Your task to perform on an android device: turn on wifi Image 0: 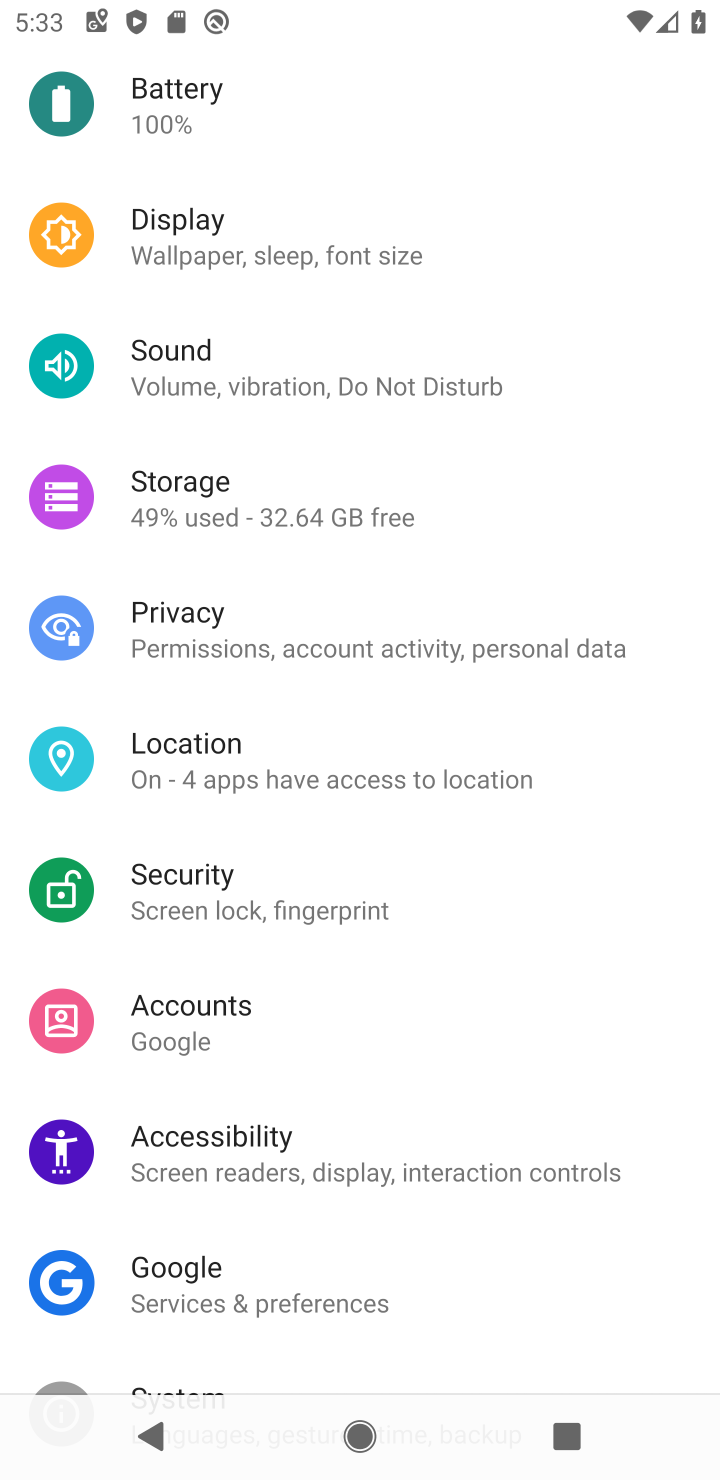
Step 0: drag from (265, 556) to (344, 1262)
Your task to perform on an android device: turn on wifi Image 1: 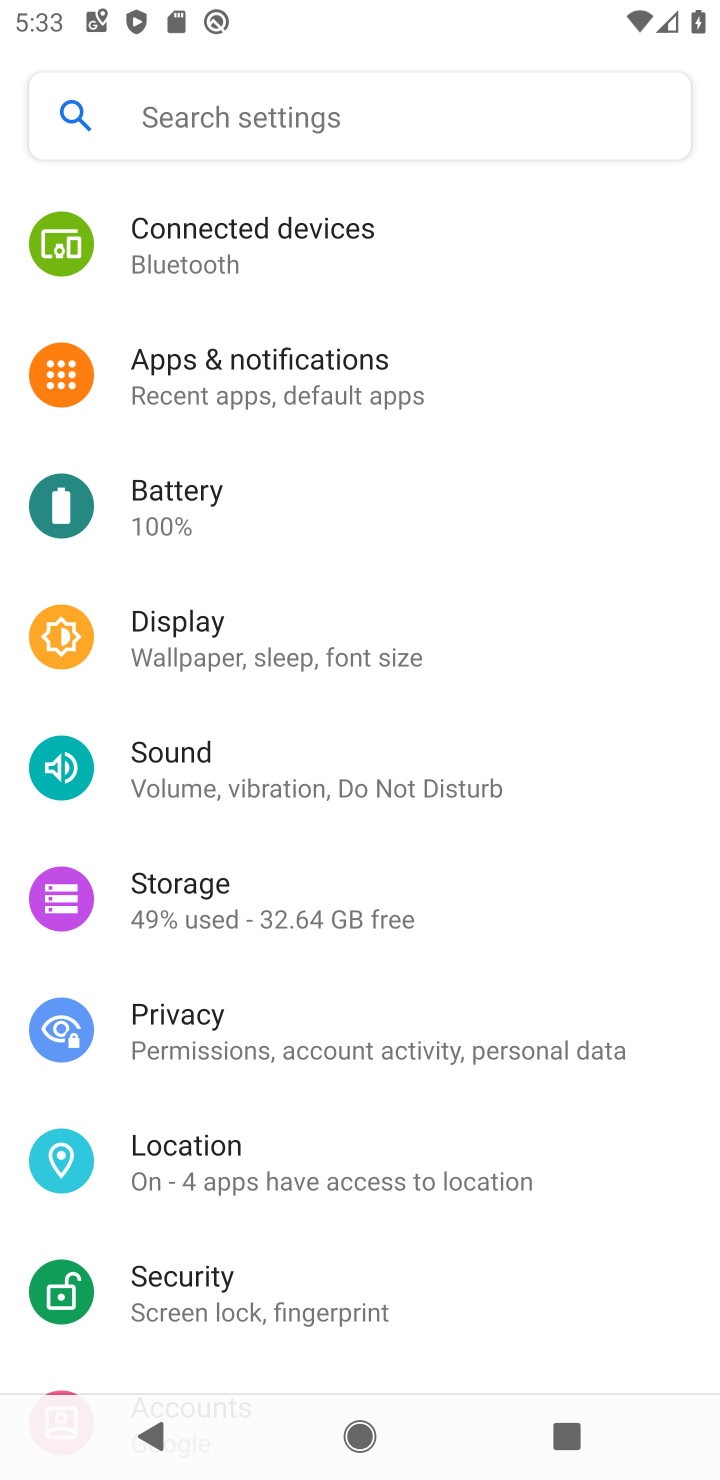
Step 1: drag from (310, 516) to (366, 1297)
Your task to perform on an android device: turn on wifi Image 2: 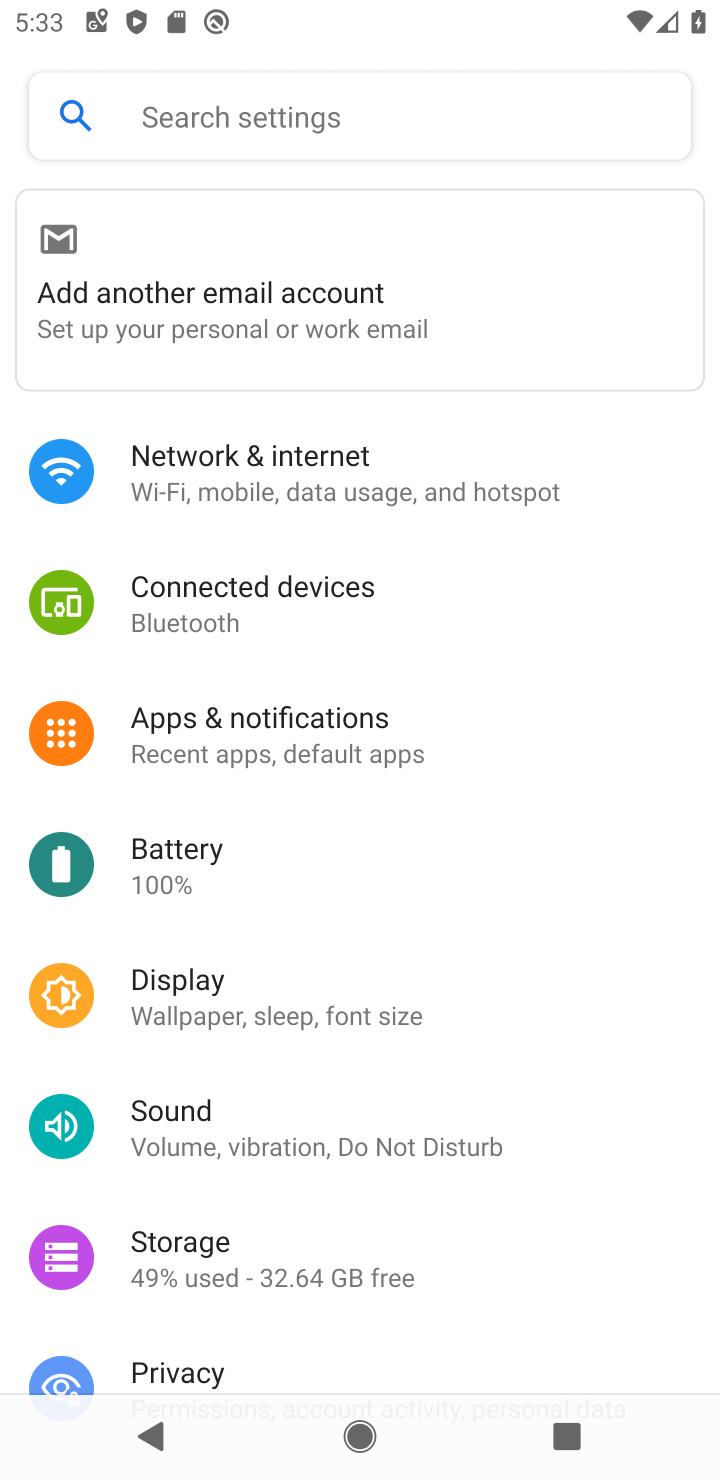
Step 2: click (279, 485)
Your task to perform on an android device: turn on wifi Image 3: 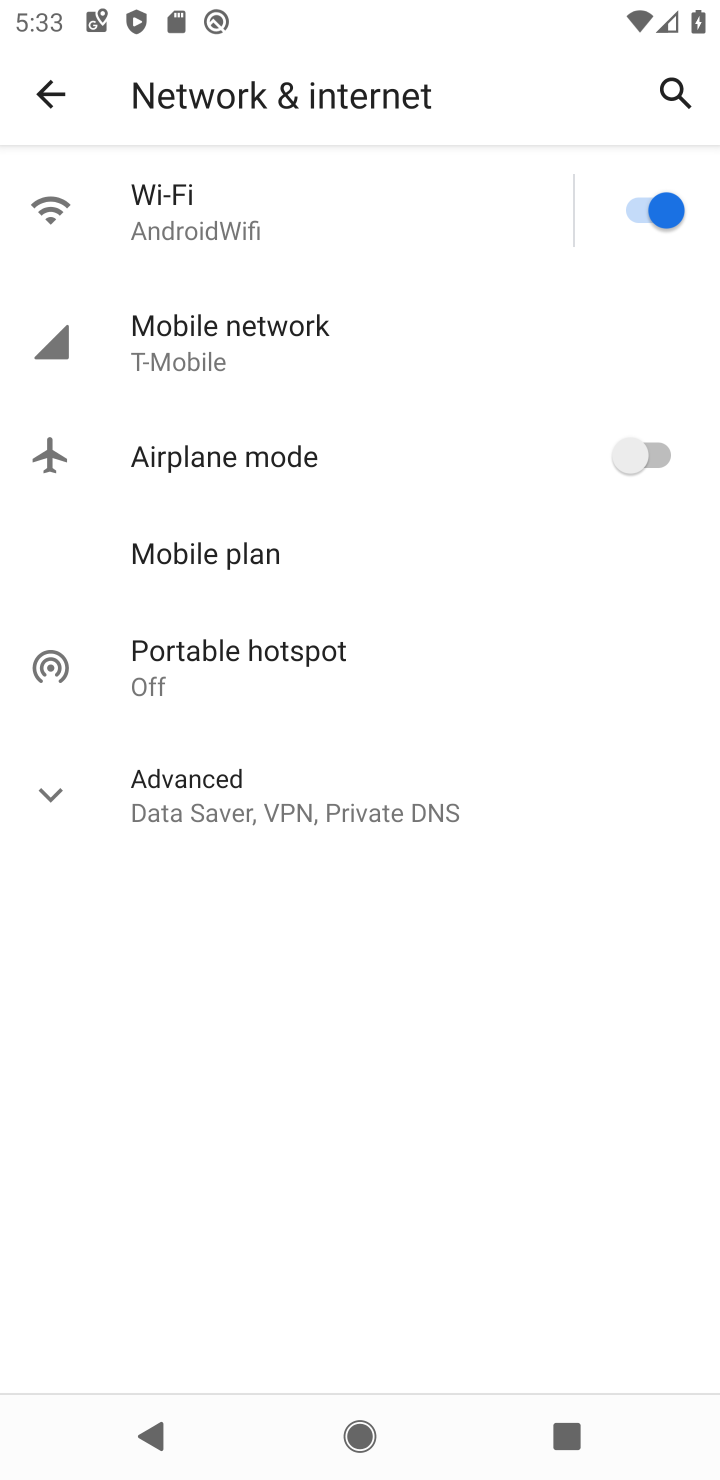
Step 3: task complete